Your task to perform on an android device: Go to Google maps Image 0: 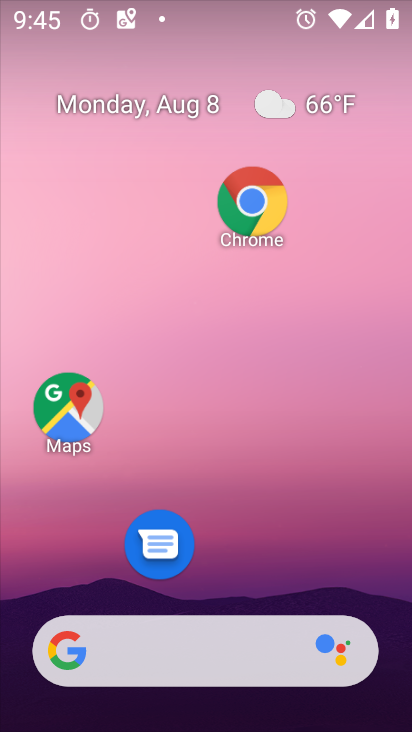
Step 0: drag from (232, 594) to (219, 1)
Your task to perform on an android device: Go to Google maps Image 1: 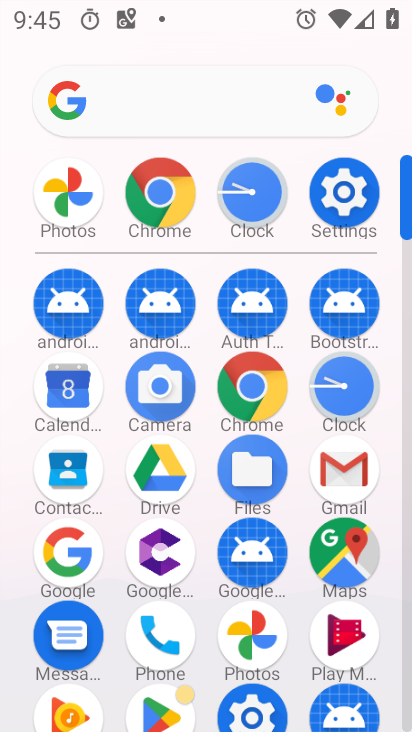
Step 1: click (341, 550)
Your task to perform on an android device: Go to Google maps Image 2: 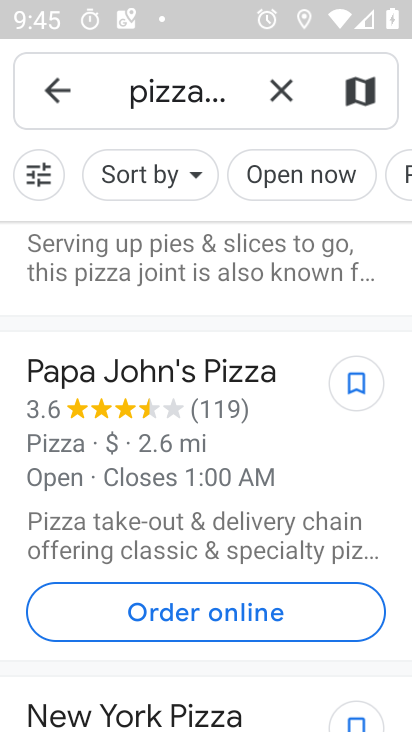
Step 2: click (58, 108)
Your task to perform on an android device: Go to Google maps Image 3: 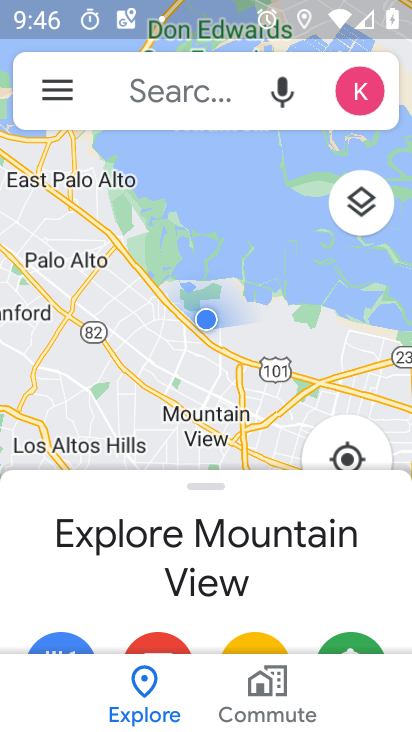
Step 3: task complete